Your task to perform on an android device: check android version Image 0: 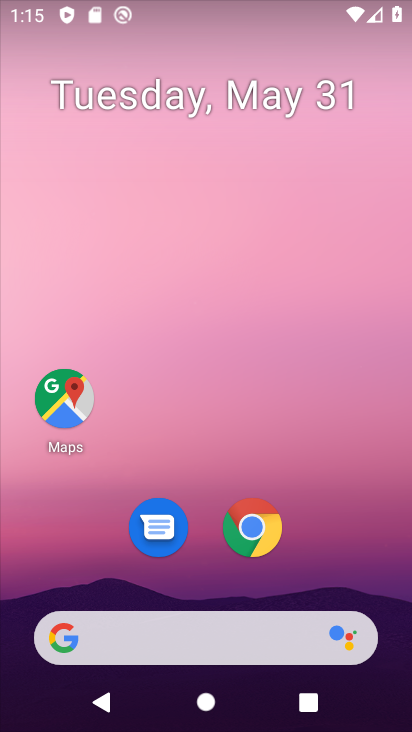
Step 0: drag from (356, 495) to (323, 7)
Your task to perform on an android device: check android version Image 1: 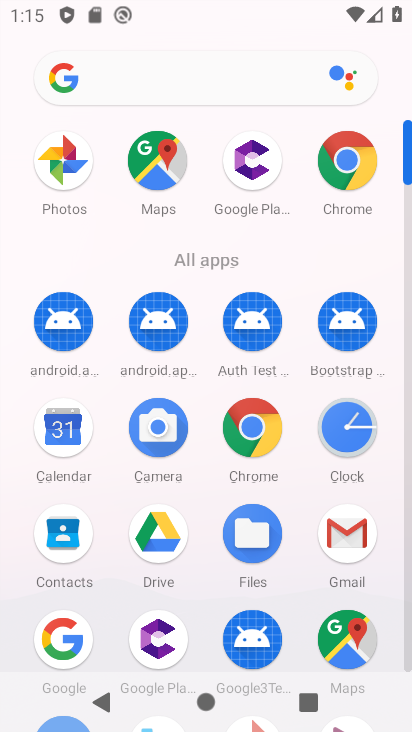
Step 1: drag from (397, 461) to (363, 87)
Your task to perform on an android device: check android version Image 2: 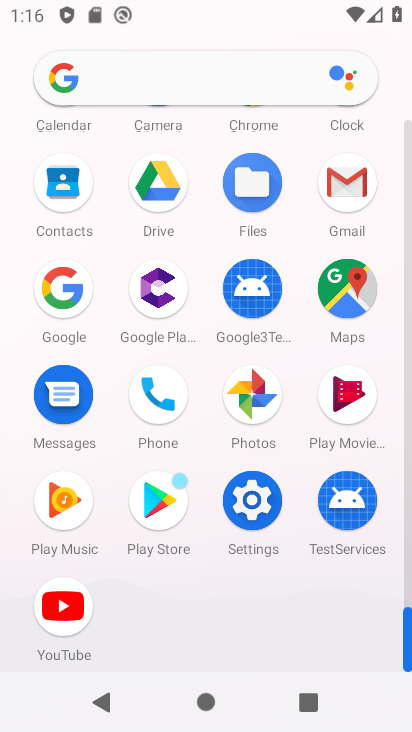
Step 2: click (248, 515)
Your task to perform on an android device: check android version Image 3: 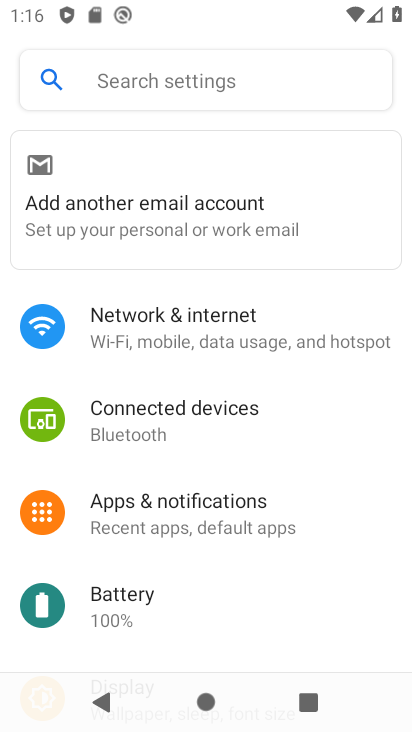
Step 3: drag from (193, 580) to (222, 253)
Your task to perform on an android device: check android version Image 4: 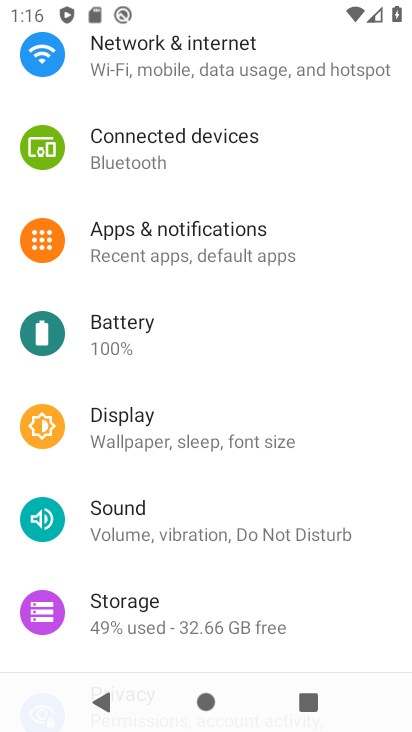
Step 4: drag from (193, 595) to (265, 181)
Your task to perform on an android device: check android version Image 5: 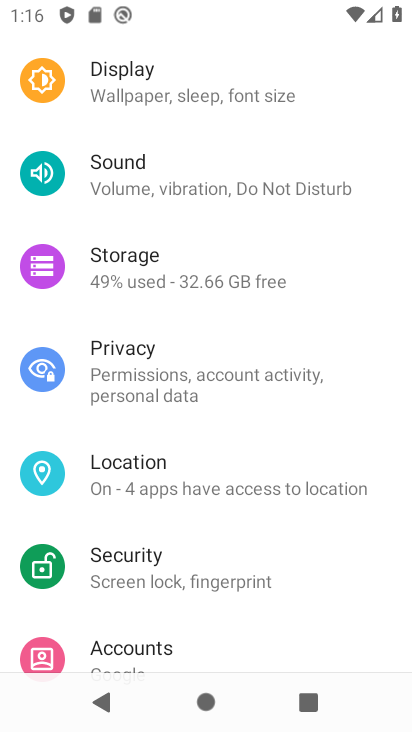
Step 5: drag from (270, 663) to (254, 230)
Your task to perform on an android device: check android version Image 6: 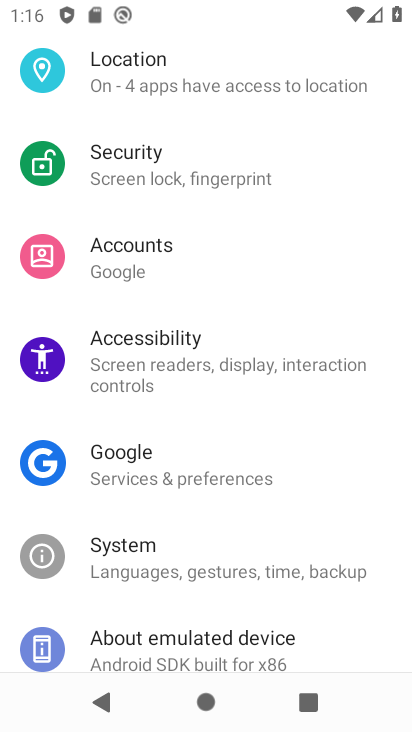
Step 6: drag from (181, 613) to (147, 251)
Your task to perform on an android device: check android version Image 7: 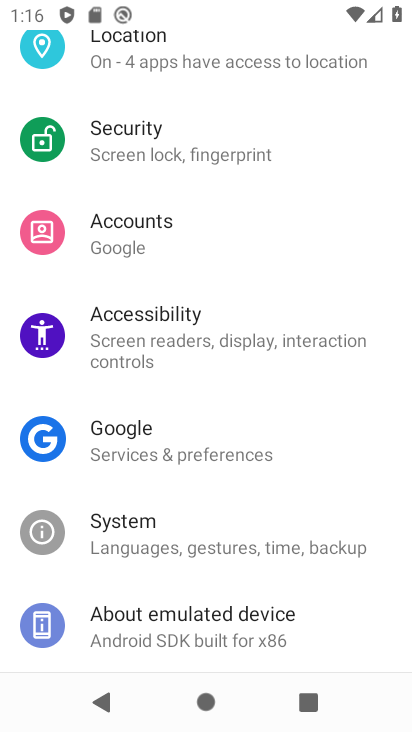
Step 7: click (128, 637)
Your task to perform on an android device: check android version Image 8: 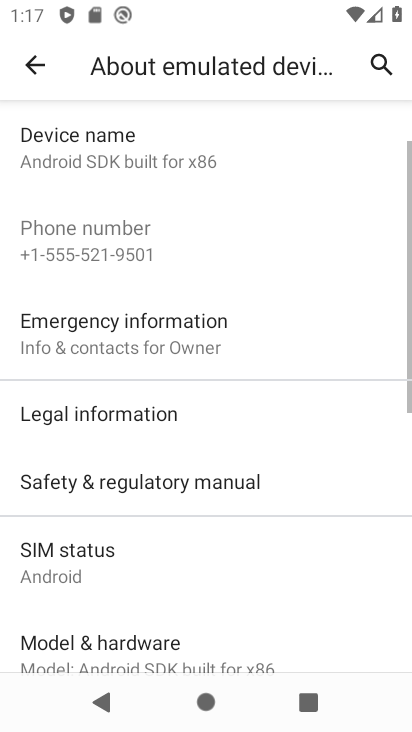
Step 8: drag from (205, 605) to (242, 293)
Your task to perform on an android device: check android version Image 9: 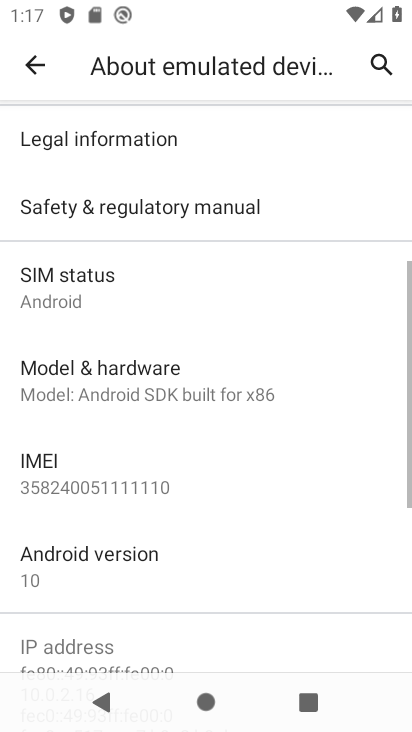
Step 9: click (101, 578)
Your task to perform on an android device: check android version Image 10: 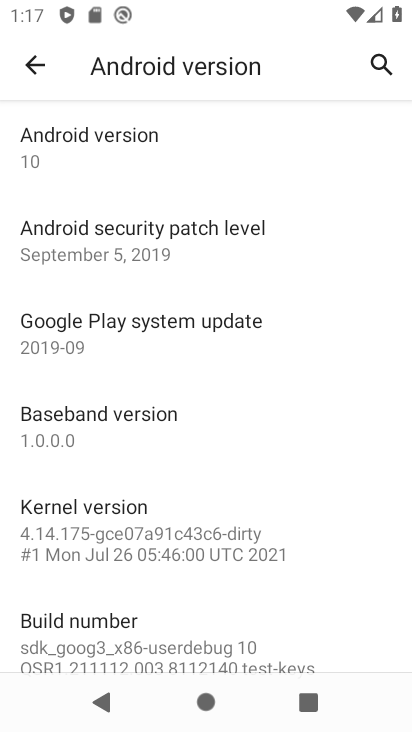
Step 10: task complete